Your task to perform on an android device: What is the news today? Image 0: 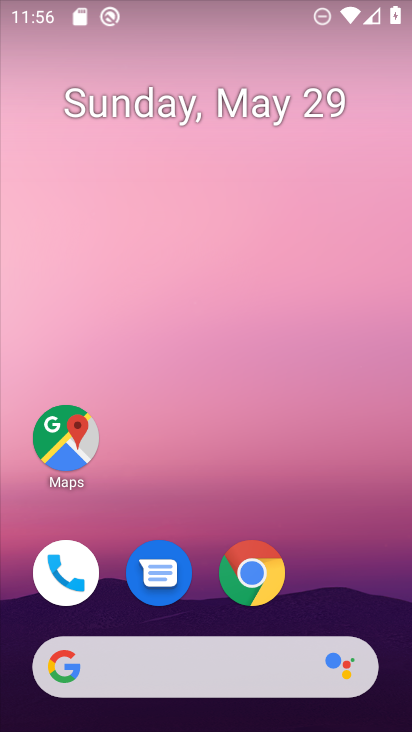
Step 0: click (231, 674)
Your task to perform on an android device: What is the news today? Image 1: 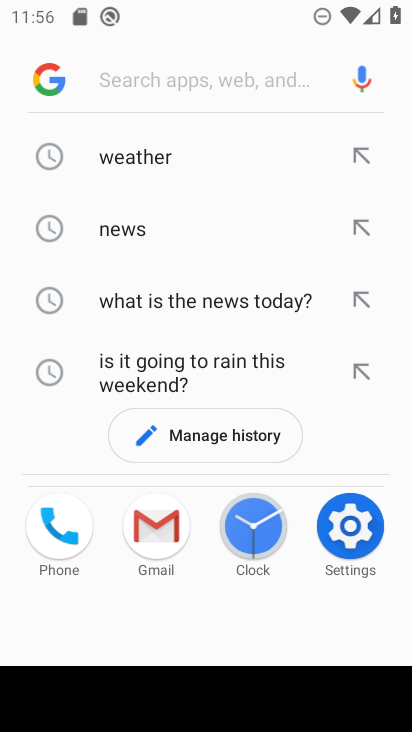
Step 1: type "news today"
Your task to perform on an android device: What is the news today? Image 2: 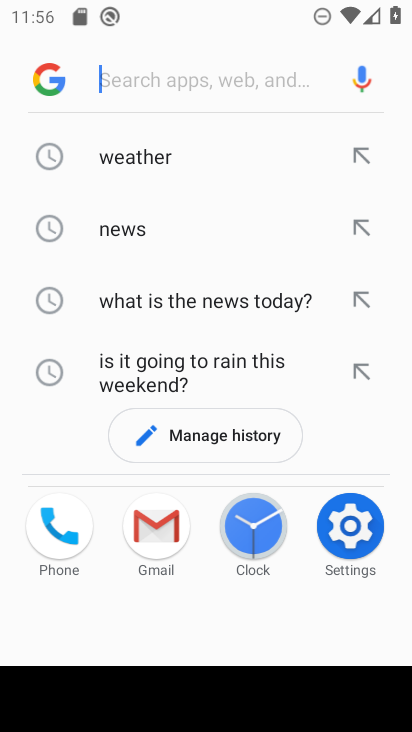
Step 2: click (212, 79)
Your task to perform on an android device: What is the news today? Image 3: 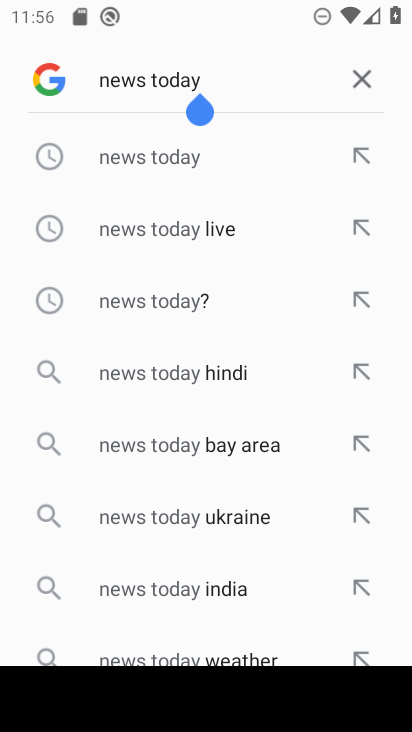
Step 3: click (172, 159)
Your task to perform on an android device: What is the news today? Image 4: 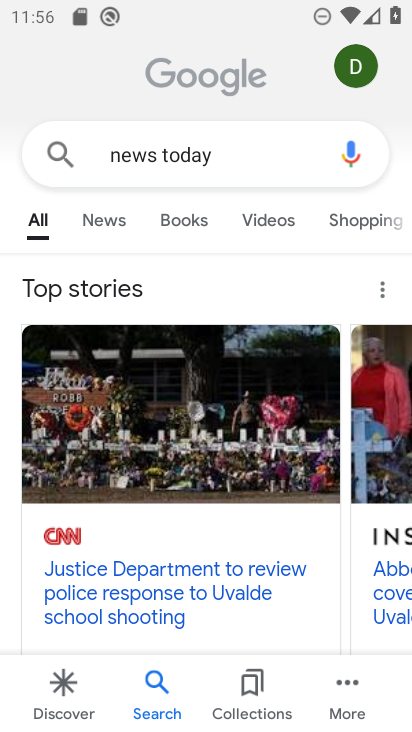
Step 4: task complete